Your task to perform on an android device: Is it going to rain this weekend? Image 0: 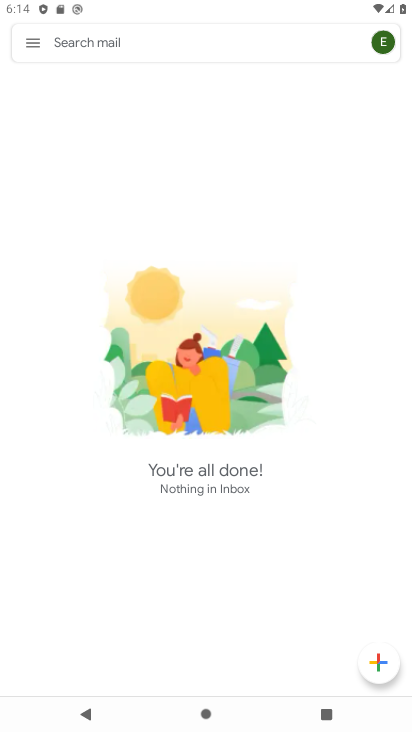
Step 0: press back button
Your task to perform on an android device: Is it going to rain this weekend? Image 1: 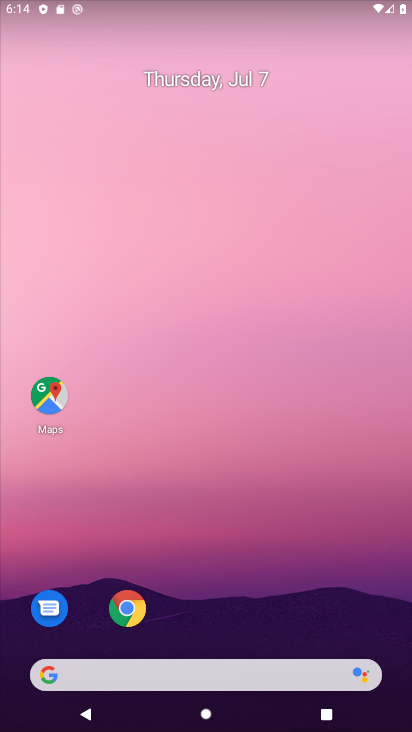
Step 1: click (164, 678)
Your task to perform on an android device: Is it going to rain this weekend? Image 2: 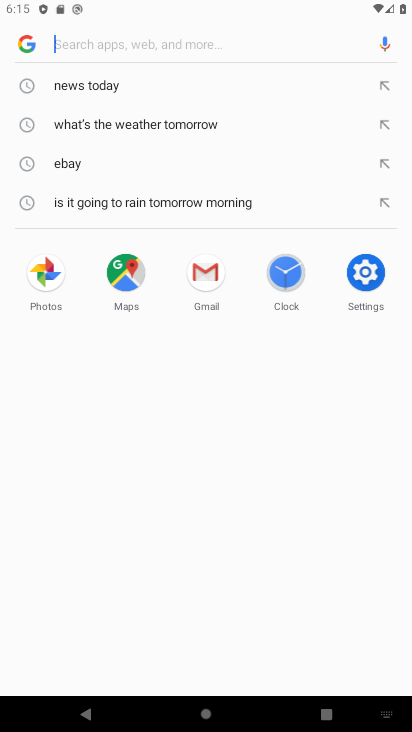
Step 2: click (145, 45)
Your task to perform on an android device: Is it going to rain this weekend? Image 3: 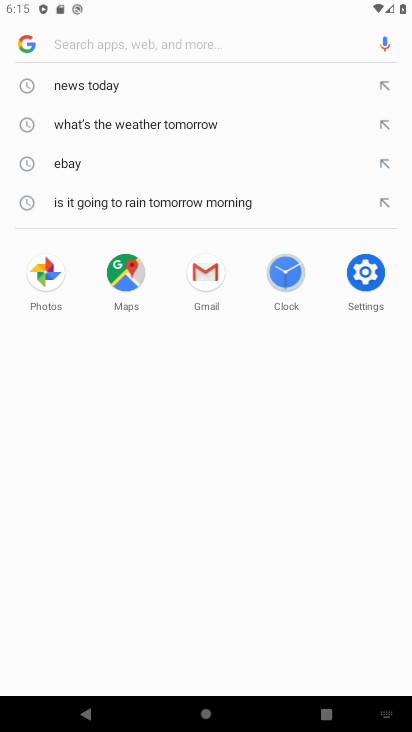
Step 3: type "wheather"
Your task to perform on an android device: Is it going to rain this weekend? Image 4: 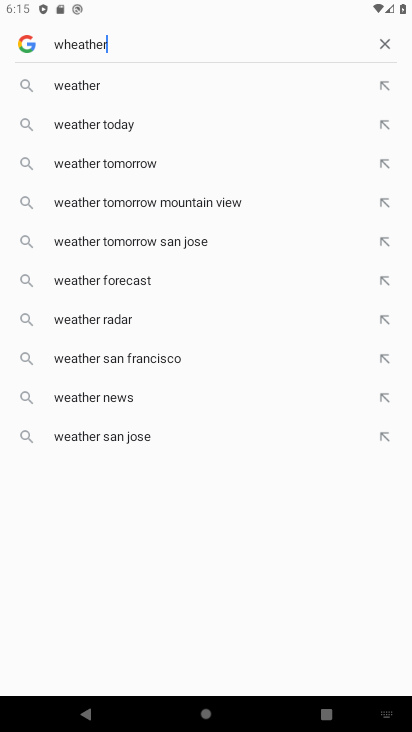
Step 4: click (97, 84)
Your task to perform on an android device: Is it going to rain this weekend? Image 5: 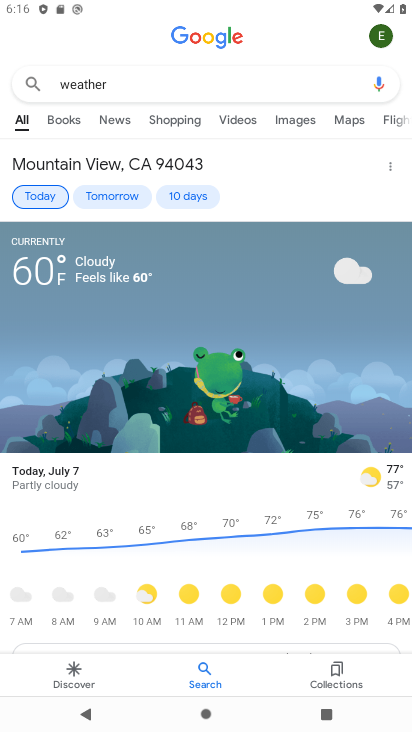
Step 5: click (177, 203)
Your task to perform on an android device: Is it going to rain this weekend? Image 6: 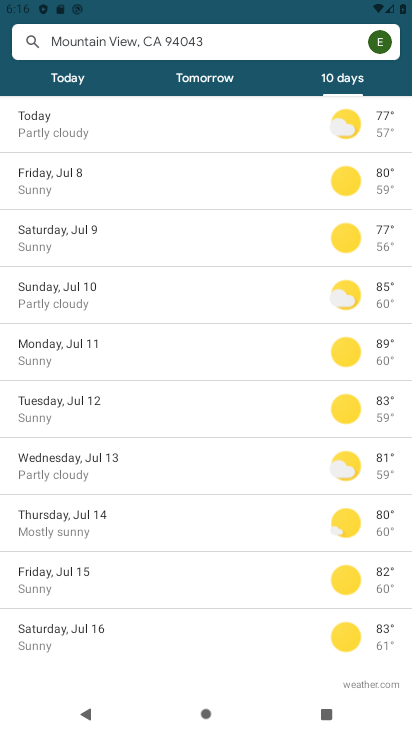
Step 6: task complete